Your task to perform on an android device: install app "Adobe Acrobat Reader: Edit PDF" Image 0: 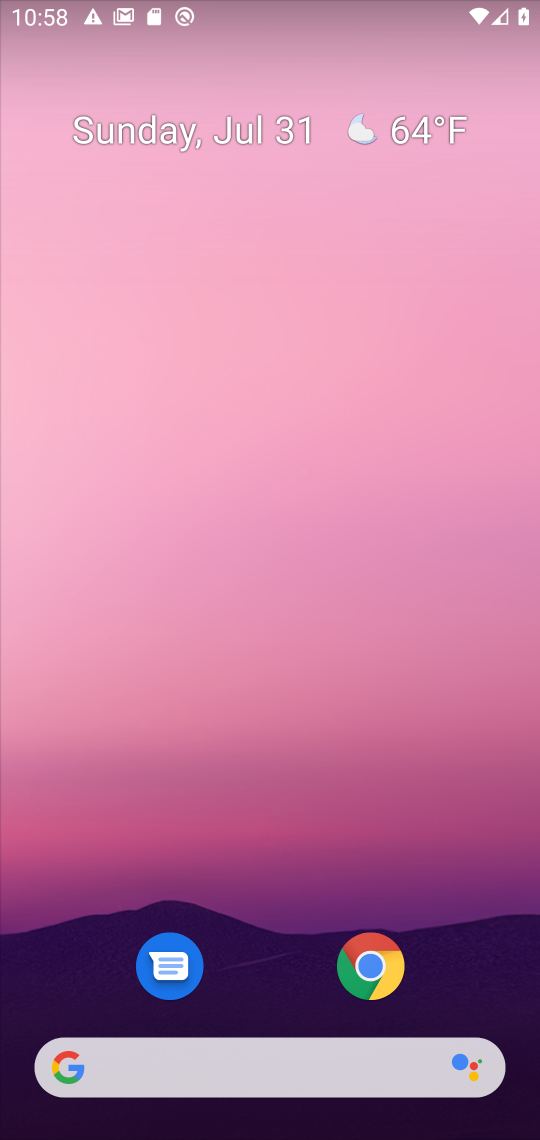
Step 0: drag from (238, 974) to (278, 131)
Your task to perform on an android device: install app "Adobe Acrobat Reader: Edit PDF" Image 1: 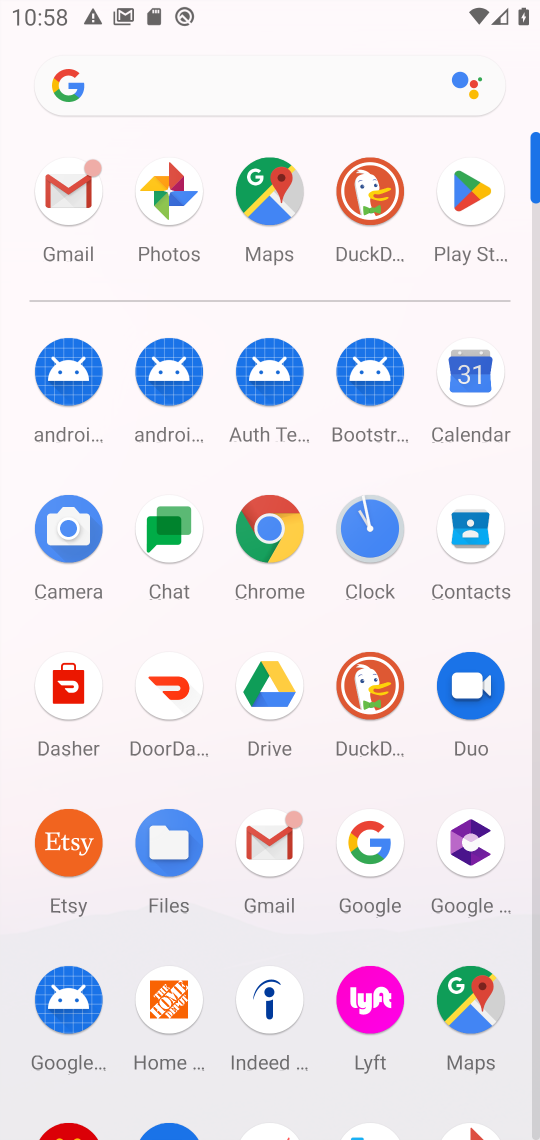
Step 1: click (480, 228)
Your task to perform on an android device: install app "Adobe Acrobat Reader: Edit PDF" Image 2: 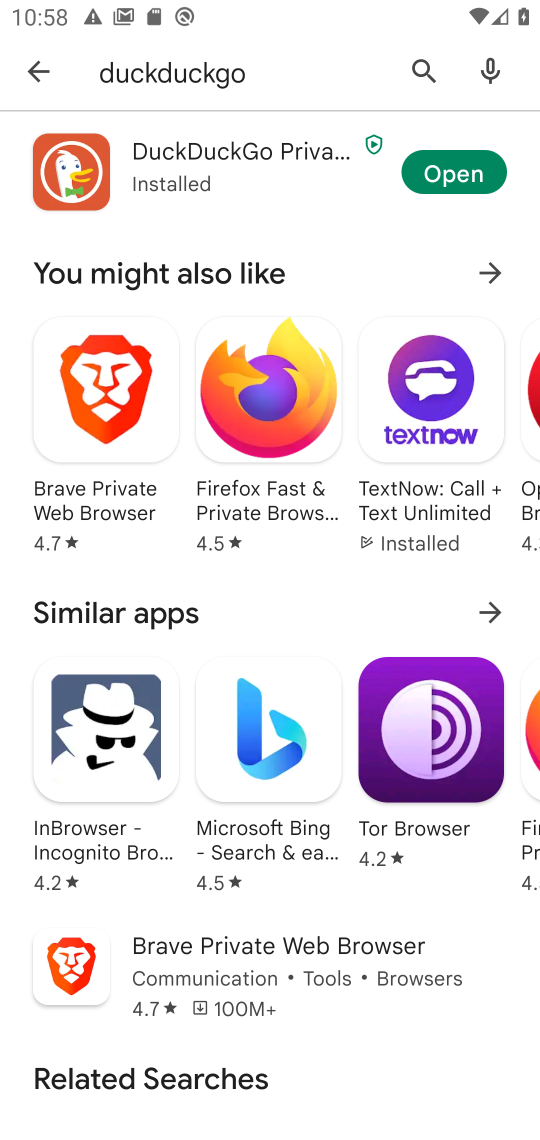
Step 2: click (204, 78)
Your task to perform on an android device: install app "Adobe Acrobat Reader: Edit PDF" Image 3: 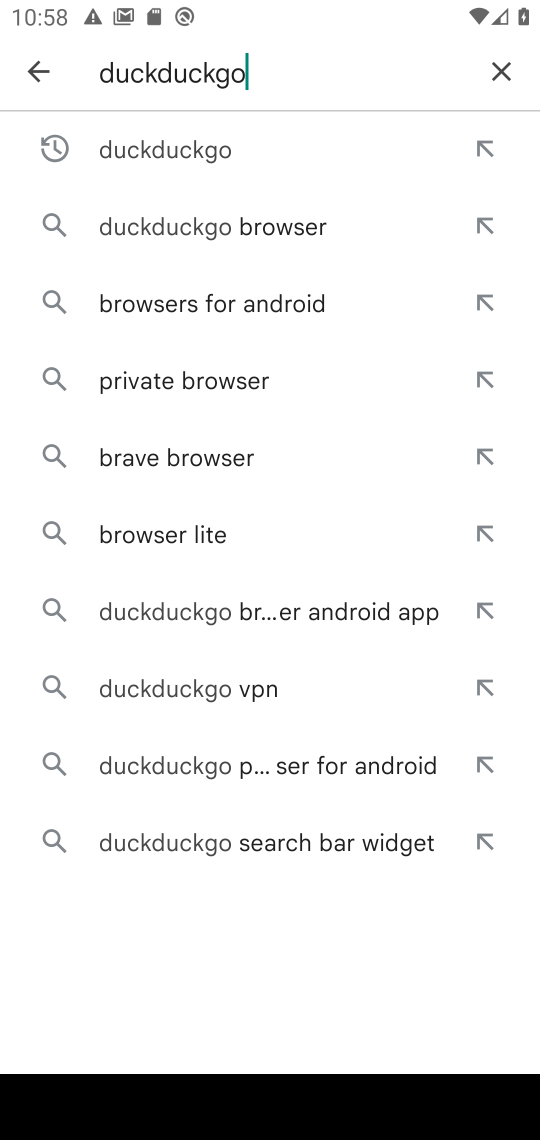
Step 3: click (501, 62)
Your task to perform on an android device: install app "Adobe Acrobat Reader: Edit PDF" Image 4: 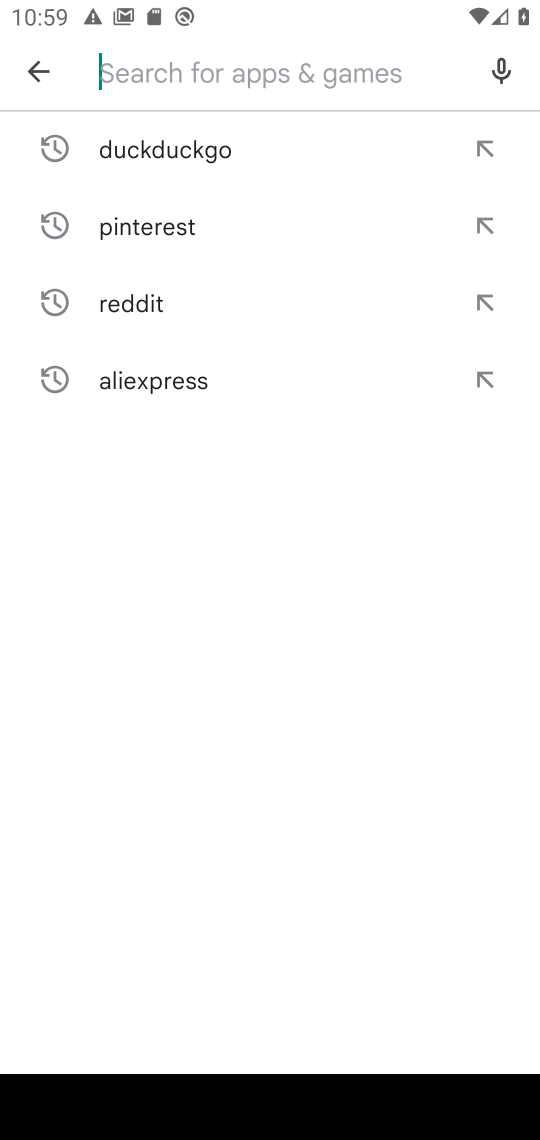
Step 4: type "Adobe acrobat"
Your task to perform on an android device: install app "Adobe Acrobat Reader: Edit PDF" Image 5: 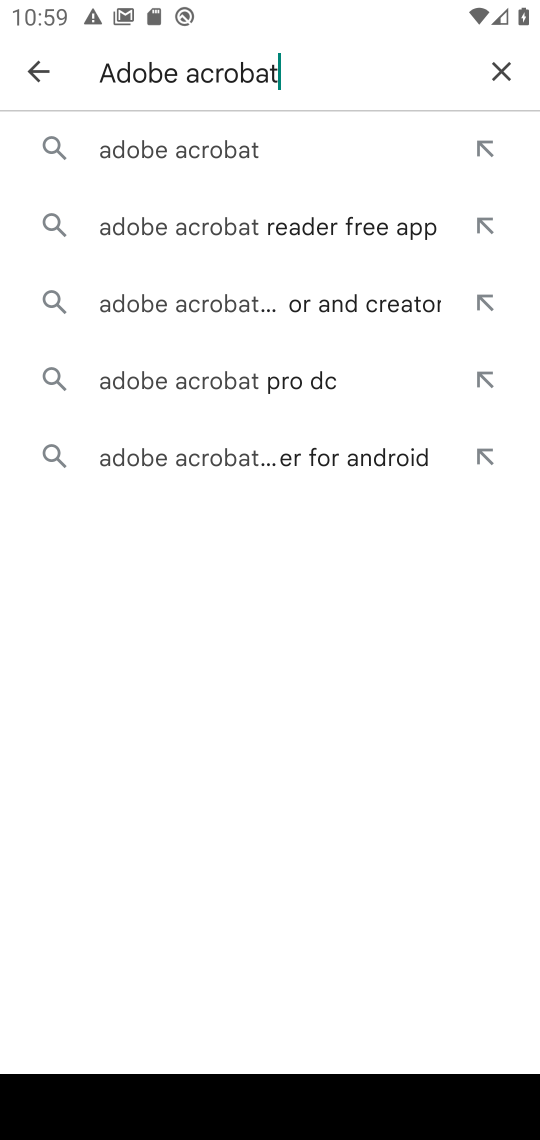
Step 5: click (190, 239)
Your task to perform on an android device: install app "Adobe Acrobat Reader: Edit PDF" Image 6: 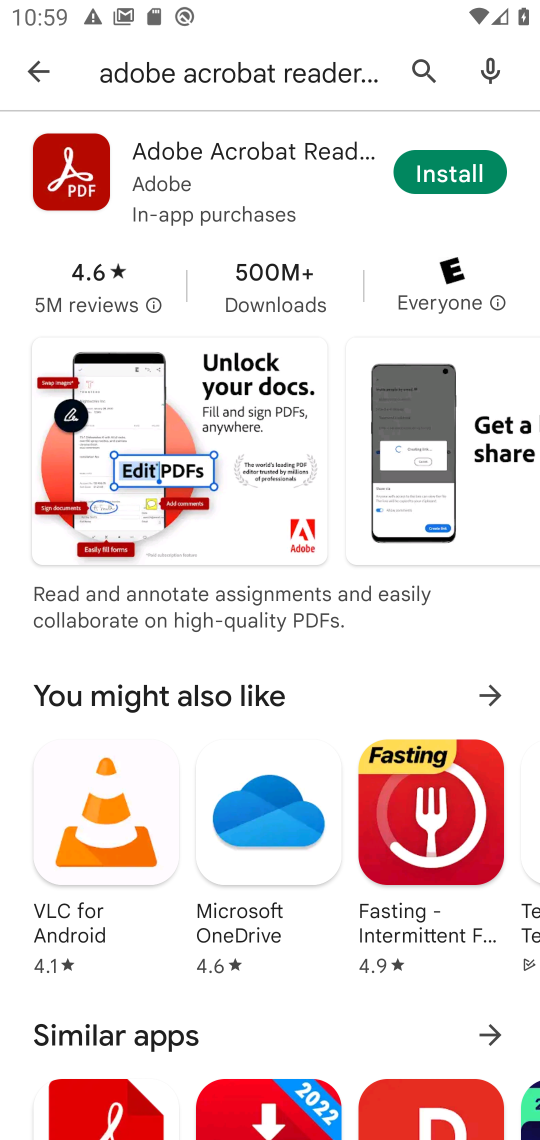
Step 6: click (436, 181)
Your task to perform on an android device: install app "Adobe Acrobat Reader: Edit PDF" Image 7: 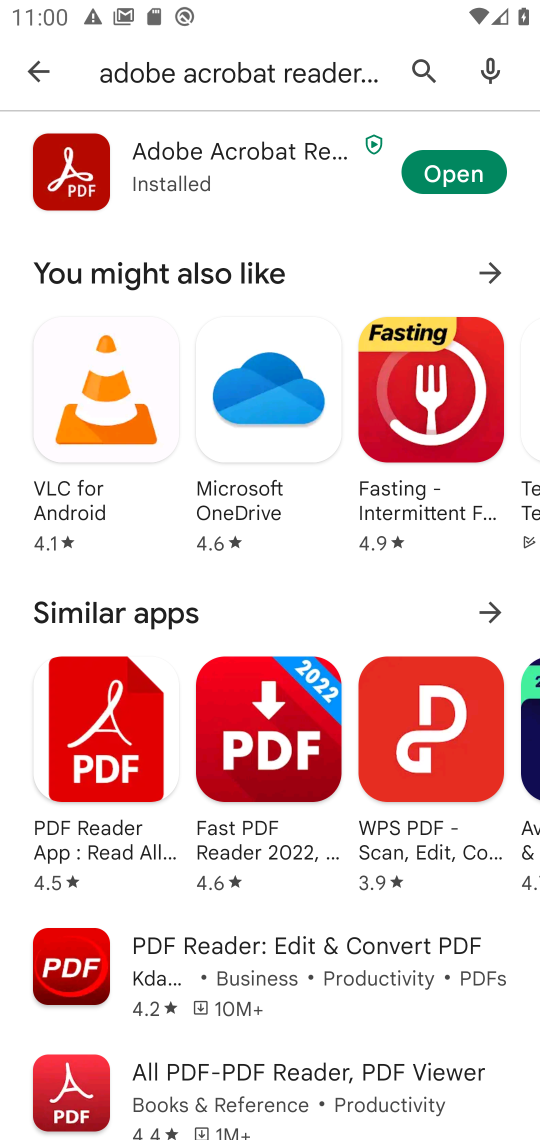
Step 7: task complete